Your task to perform on an android device: turn pop-ups on in chrome Image 0: 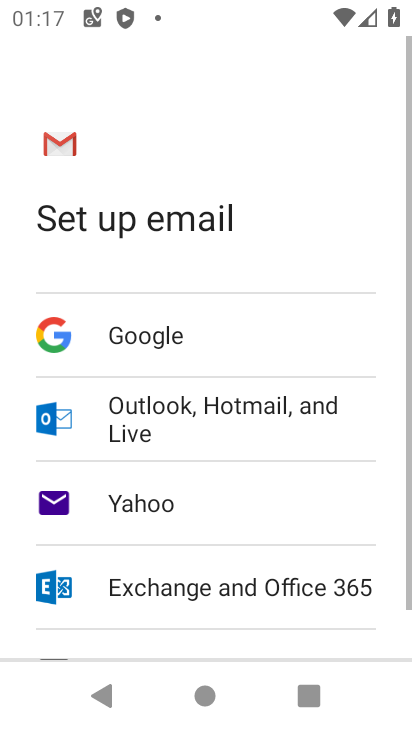
Step 0: press home button
Your task to perform on an android device: turn pop-ups on in chrome Image 1: 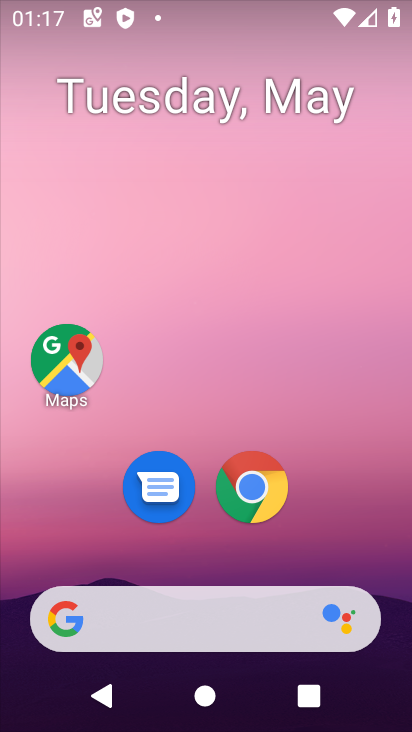
Step 1: click (261, 477)
Your task to perform on an android device: turn pop-ups on in chrome Image 2: 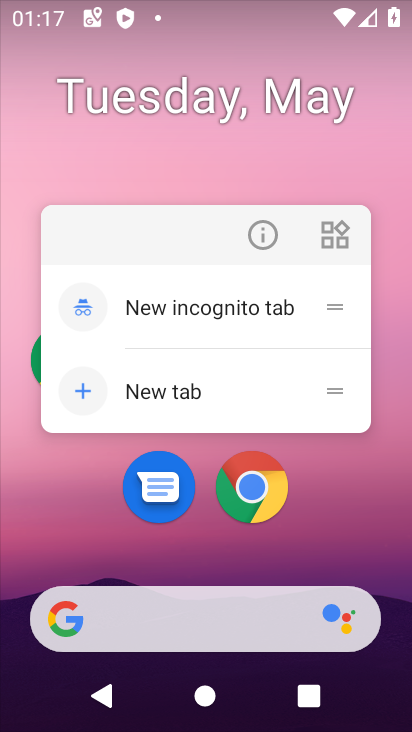
Step 2: click (262, 471)
Your task to perform on an android device: turn pop-ups on in chrome Image 3: 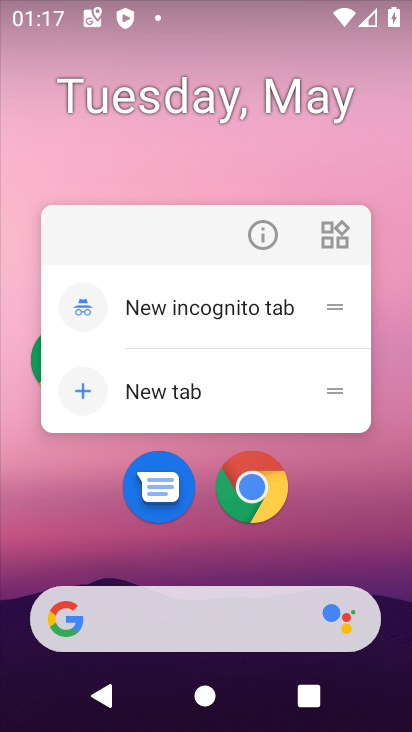
Step 3: click (262, 468)
Your task to perform on an android device: turn pop-ups on in chrome Image 4: 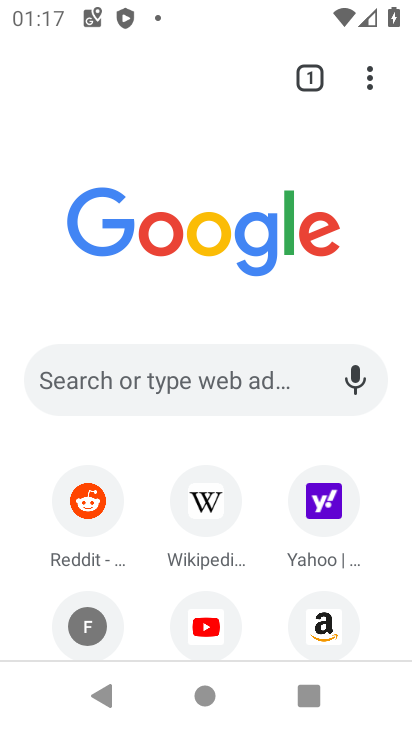
Step 4: click (369, 67)
Your task to perform on an android device: turn pop-ups on in chrome Image 5: 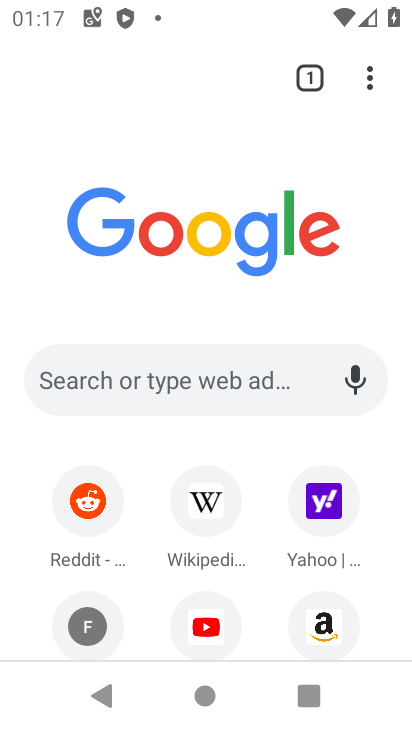
Step 5: click (379, 70)
Your task to perform on an android device: turn pop-ups on in chrome Image 6: 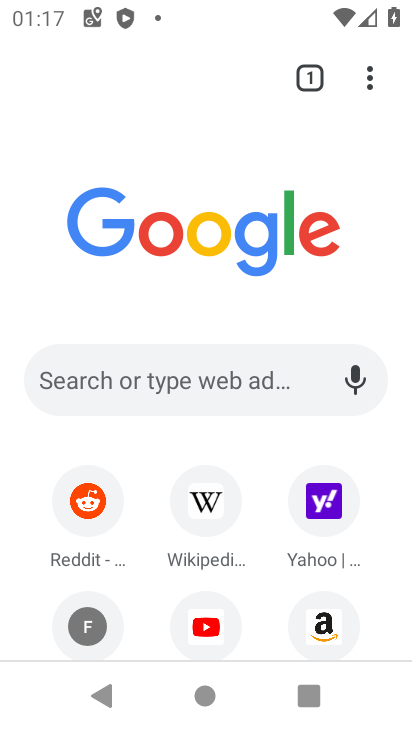
Step 6: click (363, 79)
Your task to perform on an android device: turn pop-ups on in chrome Image 7: 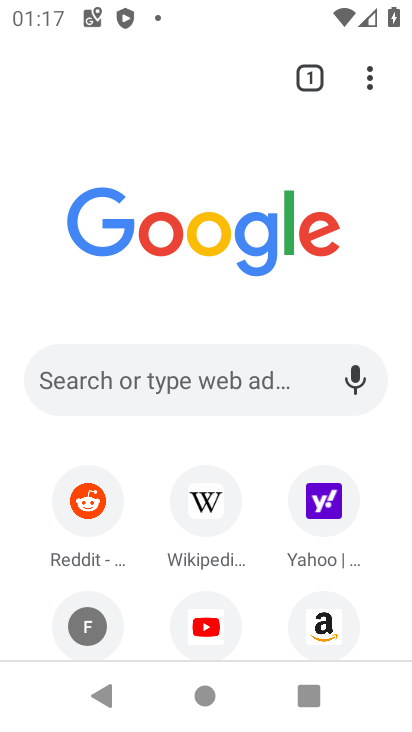
Step 7: click (363, 79)
Your task to perform on an android device: turn pop-ups on in chrome Image 8: 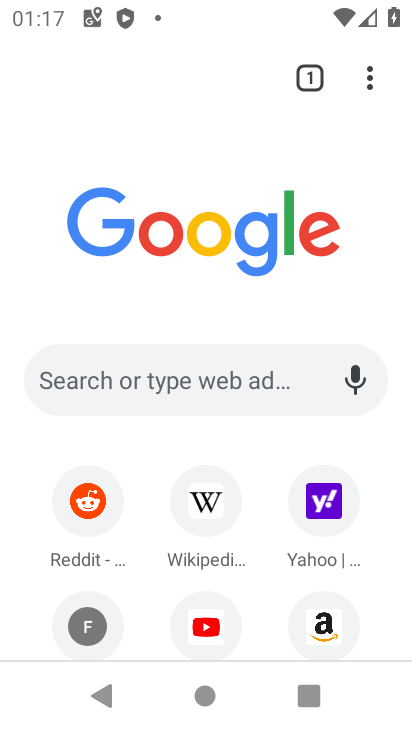
Step 8: click (363, 79)
Your task to perform on an android device: turn pop-ups on in chrome Image 9: 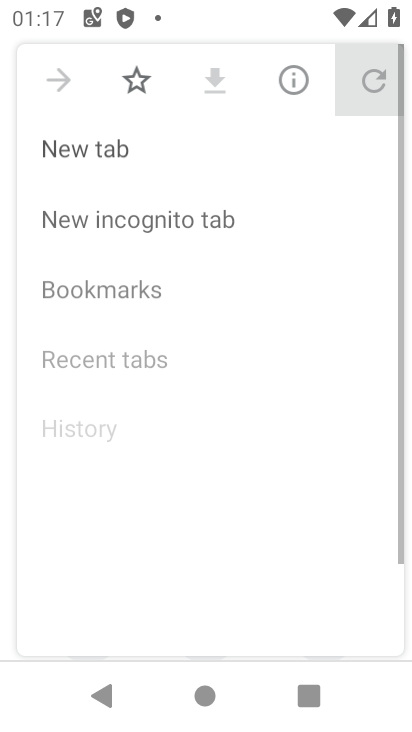
Step 9: click (363, 79)
Your task to perform on an android device: turn pop-ups on in chrome Image 10: 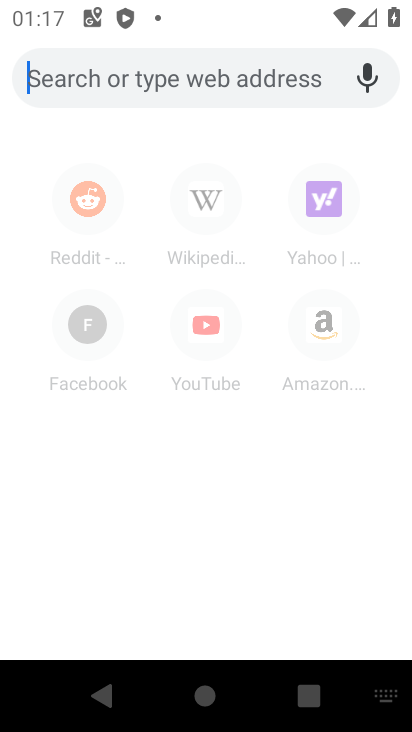
Step 10: press back button
Your task to perform on an android device: turn pop-ups on in chrome Image 11: 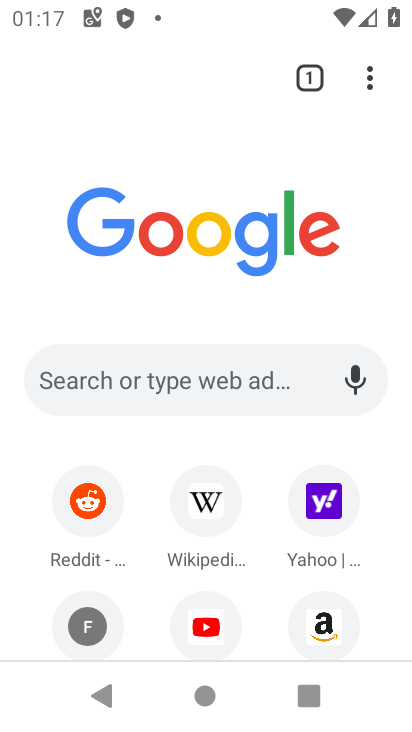
Step 11: click (366, 82)
Your task to perform on an android device: turn pop-ups on in chrome Image 12: 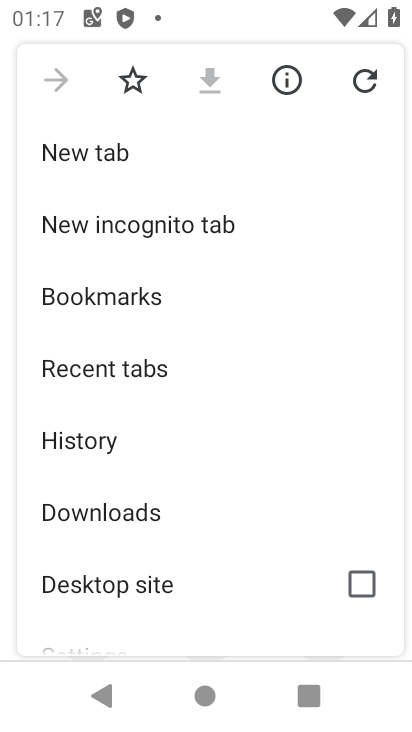
Step 12: drag from (201, 519) to (240, 327)
Your task to perform on an android device: turn pop-ups on in chrome Image 13: 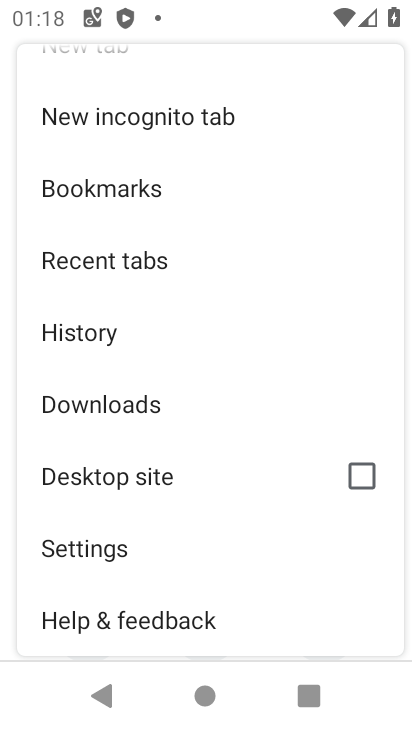
Step 13: drag from (290, 533) to (318, 236)
Your task to perform on an android device: turn pop-ups on in chrome Image 14: 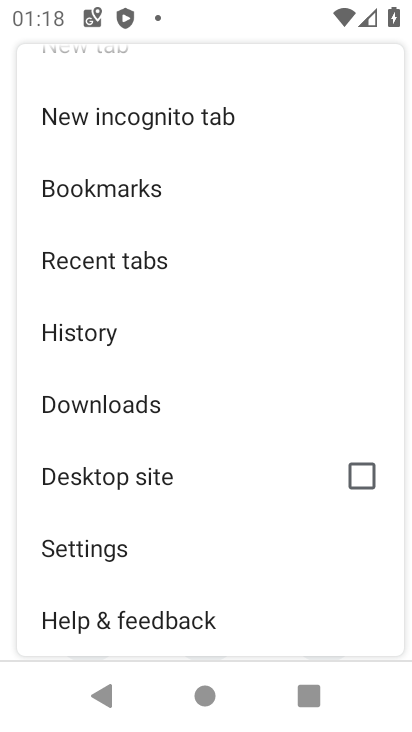
Step 14: click (253, 539)
Your task to perform on an android device: turn pop-ups on in chrome Image 15: 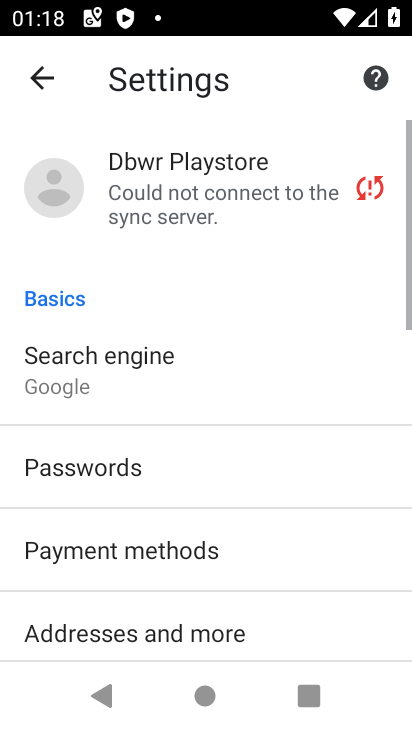
Step 15: drag from (249, 548) to (296, 273)
Your task to perform on an android device: turn pop-ups on in chrome Image 16: 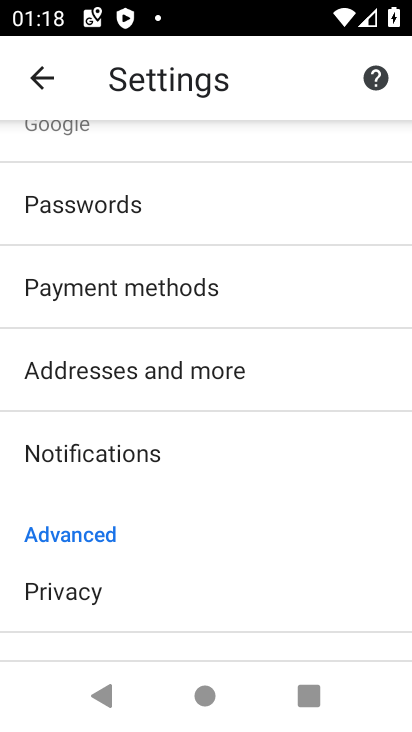
Step 16: drag from (263, 541) to (328, 137)
Your task to perform on an android device: turn pop-ups on in chrome Image 17: 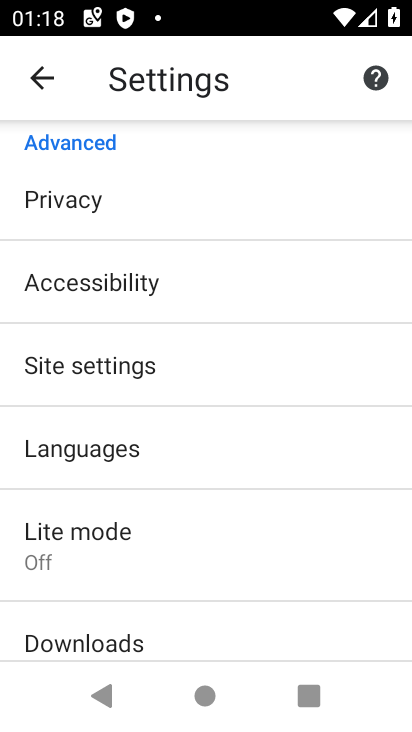
Step 17: click (248, 381)
Your task to perform on an android device: turn pop-ups on in chrome Image 18: 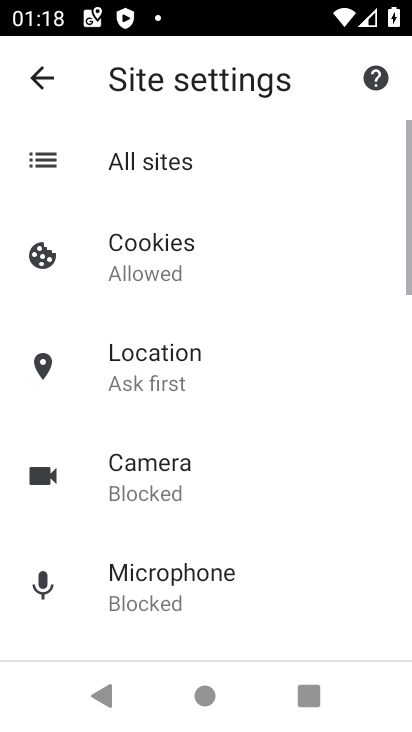
Step 18: drag from (248, 383) to (296, 82)
Your task to perform on an android device: turn pop-ups on in chrome Image 19: 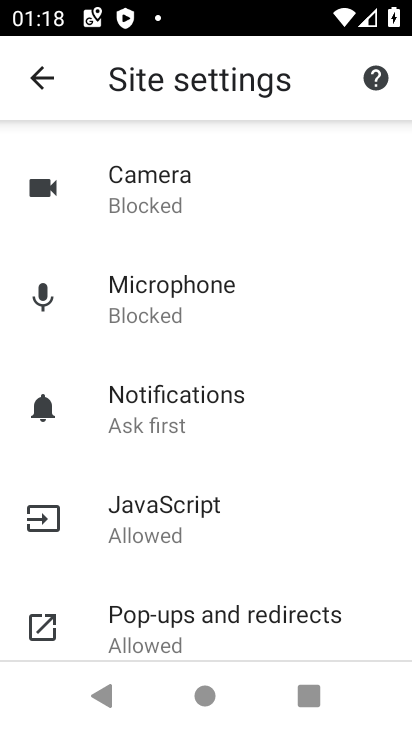
Step 19: drag from (272, 494) to (322, 195)
Your task to perform on an android device: turn pop-ups on in chrome Image 20: 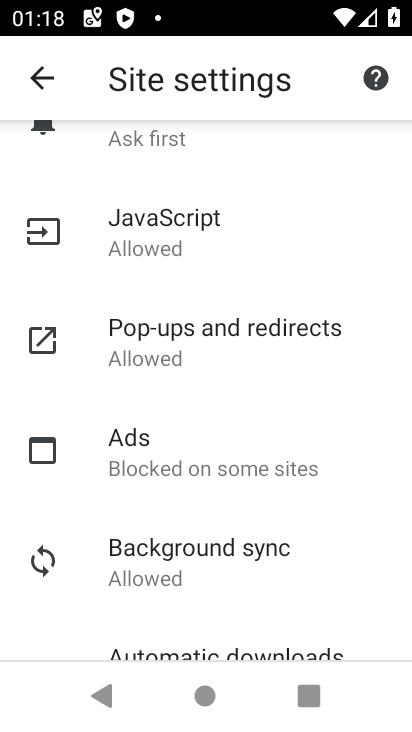
Step 20: click (308, 334)
Your task to perform on an android device: turn pop-ups on in chrome Image 21: 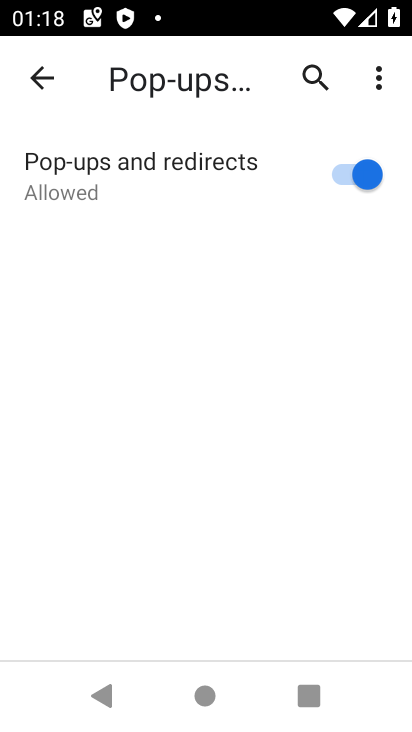
Step 21: task complete